Your task to perform on an android device: read, delete, or share a saved page in the chrome app Image 0: 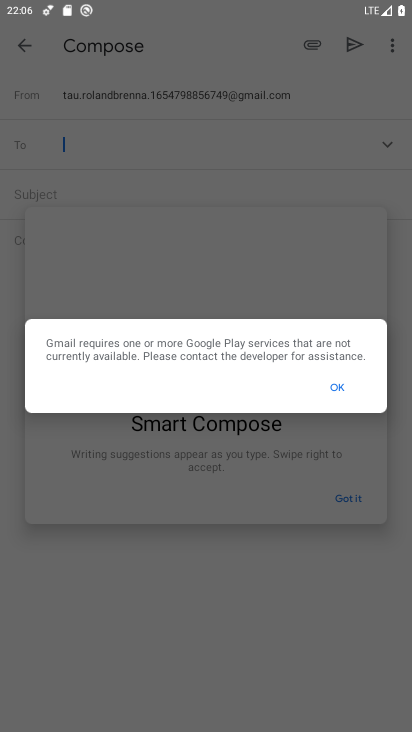
Step 0: press home button
Your task to perform on an android device: read, delete, or share a saved page in the chrome app Image 1: 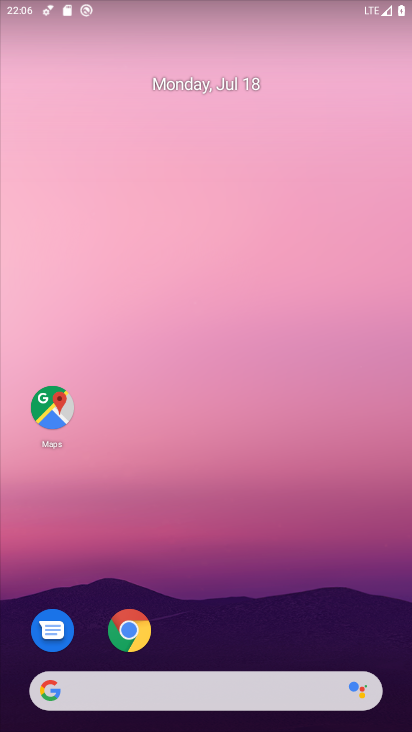
Step 1: click (133, 629)
Your task to perform on an android device: read, delete, or share a saved page in the chrome app Image 2: 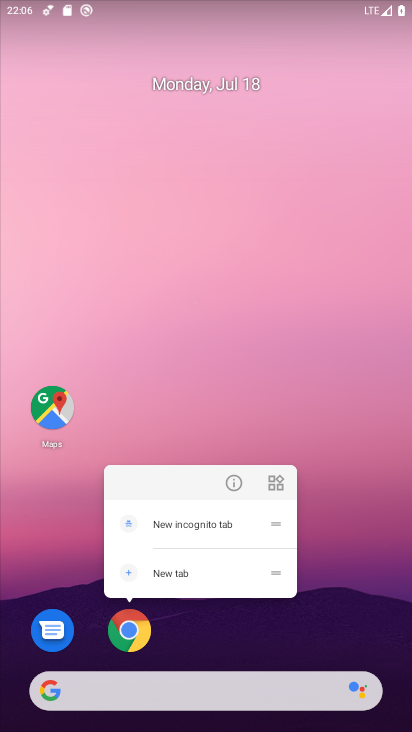
Step 2: click (133, 639)
Your task to perform on an android device: read, delete, or share a saved page in the chrome app Image 3: 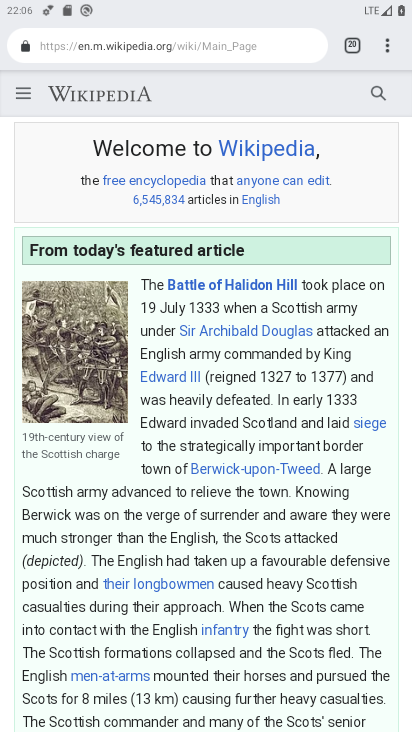
Step 3: click (391, 37)
Your task to perform on an android device: read, delete, or share a saved page in the chrome app Image 4: 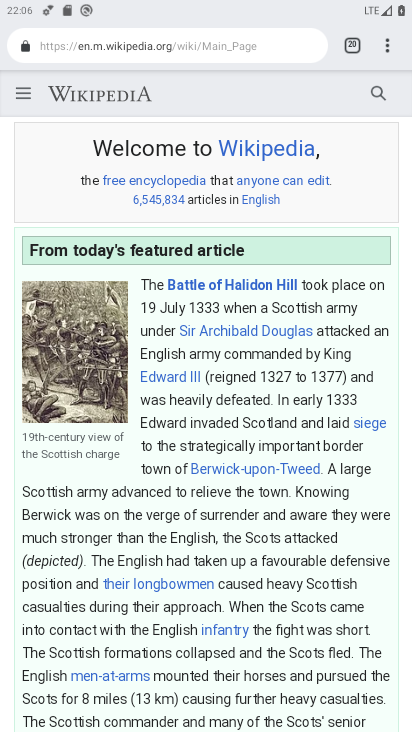
Step 4: click (391, 42)
Your task to perform on an android device: read, delete, or share a saved page in the chrome app Image 5: 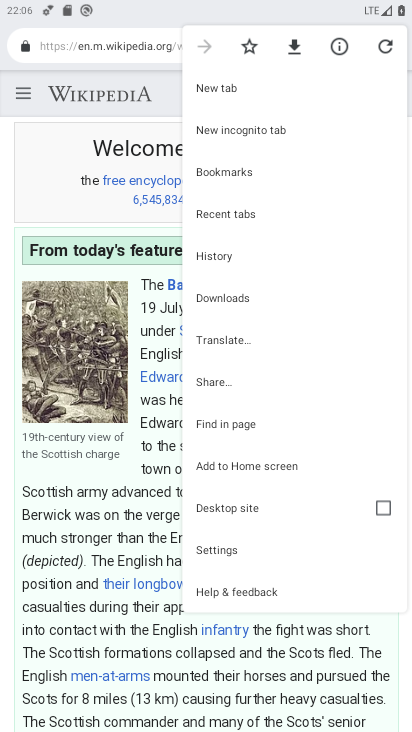
Step 5: click (231, 548)
Your task to perform on an android device: read, delete, or share a saved page in the chrome app Image 6: 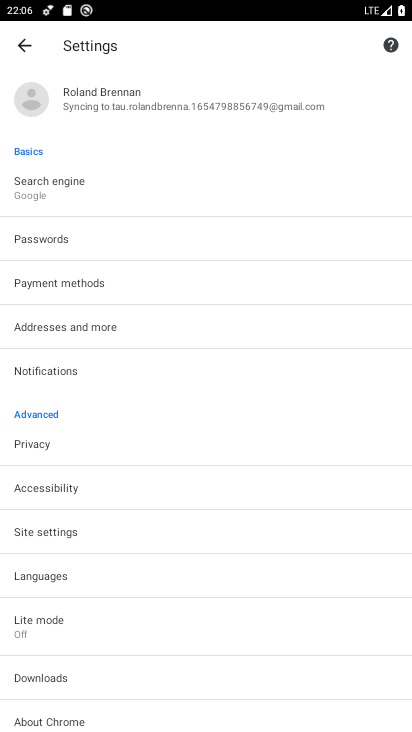
Step 6: task complete